Your task to perform on an android device: Go to location settings Image 0: 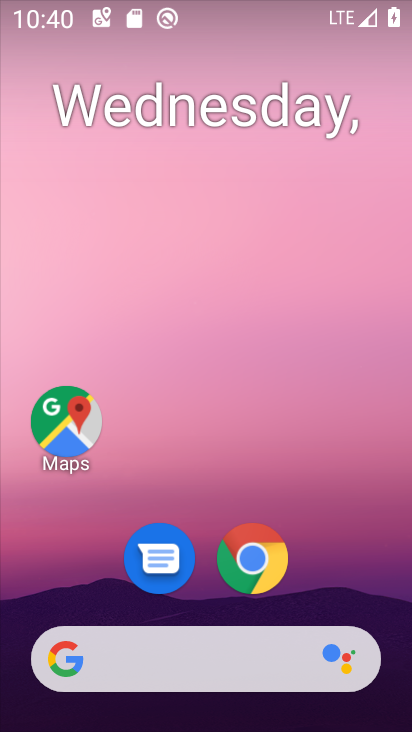
Step 0: drag from (122, 446) to (314, 171)
Your task to perform on an android device: Go to location settings Image 1: 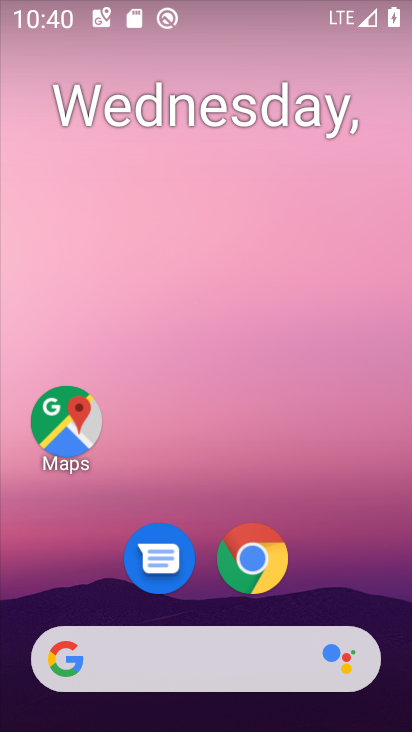
Step 1: drag from (2, 634) to (332, 154)
Your task to perform on an android device: Go to location settings Image 2: 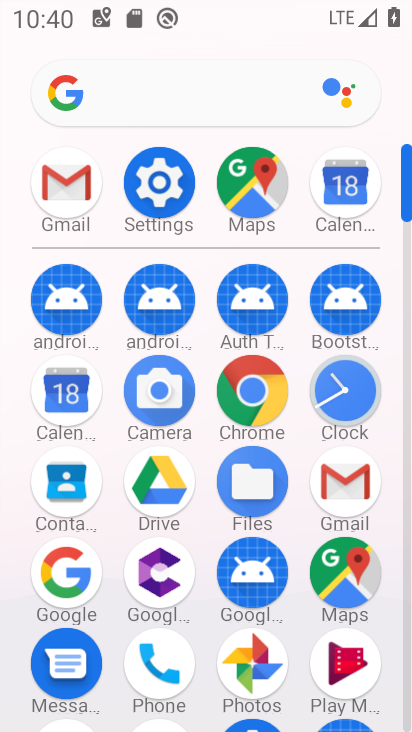
Step 2: click (159, 179)
Your task to perform on an android device: Go to location settings Image 3: 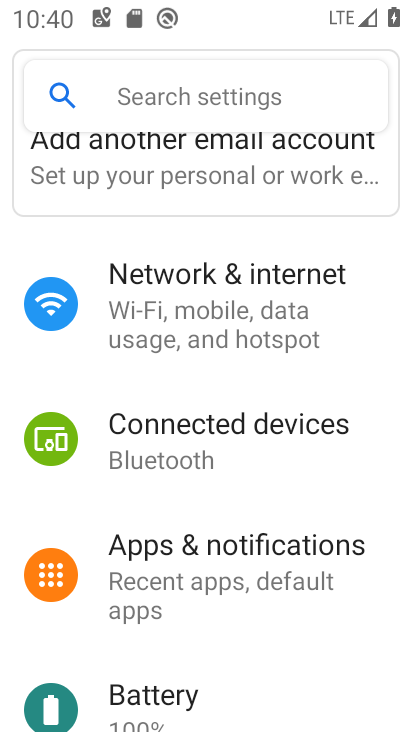
Step 3: drag from (49, 644) to (258, 208)
Your task to perform on an android device: Go to location settings Image 4: 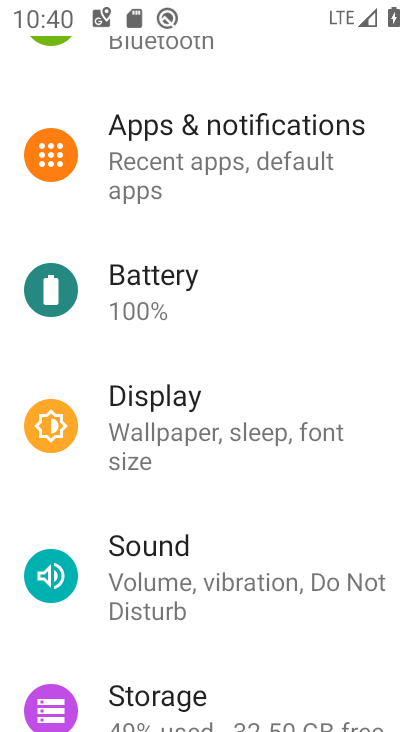
Step 4: drag from (72, 624) to (228, 313)
Your task to perform on an android device: Go to location settings Image 5: 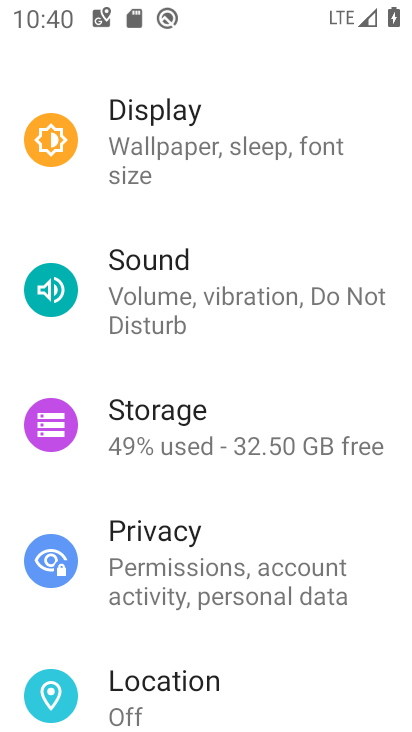
Step 5: click (104, 696)
Your task to perform on an android device: Go to location settings Image 6: 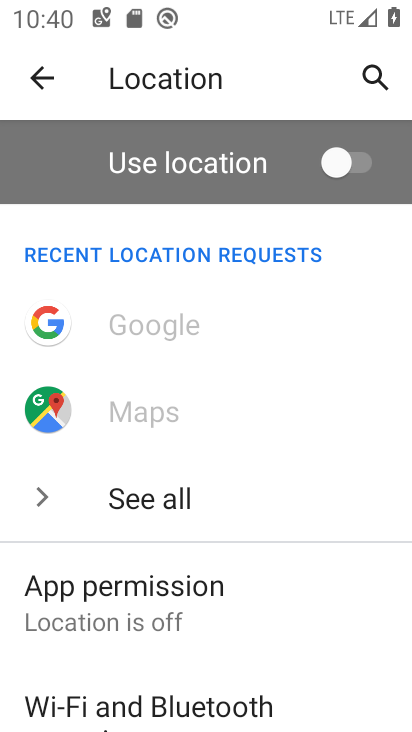
Step 6: task complete